Your task to perform on an android device: Open the calendar app, open the side menu, and click the "Day" option Image 0: 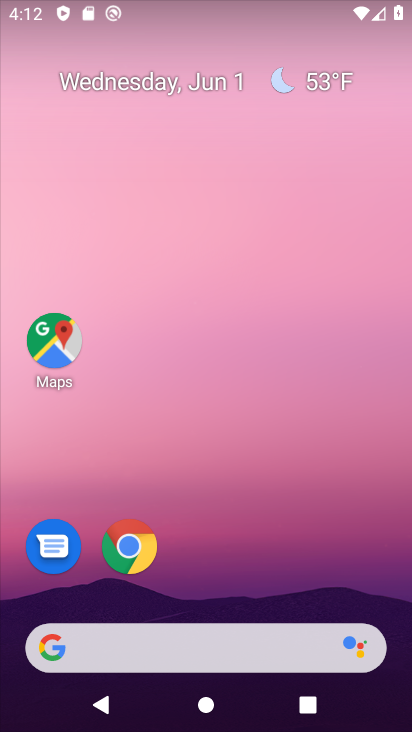
Step 0: drag from (221, 495) to (206, 193)
Your task to perform on an android device: Open the calendar app, open the side menu, and click the "Day" option Image 1: 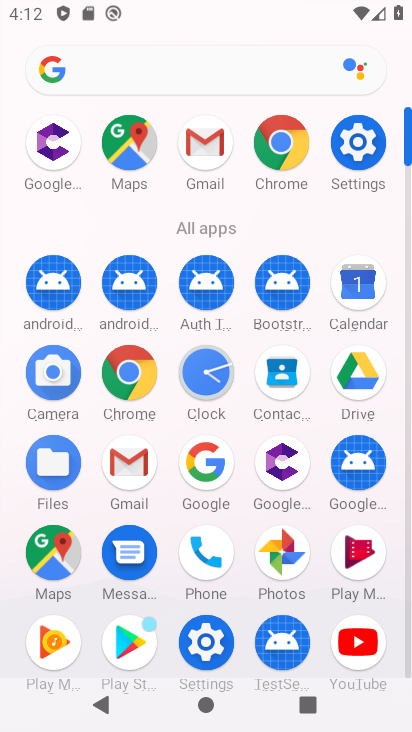
Step 1: click (351, 277)
Your task to perform on an android device: Open the calendar app, open the side menu, and click the "Day" option Image 2: 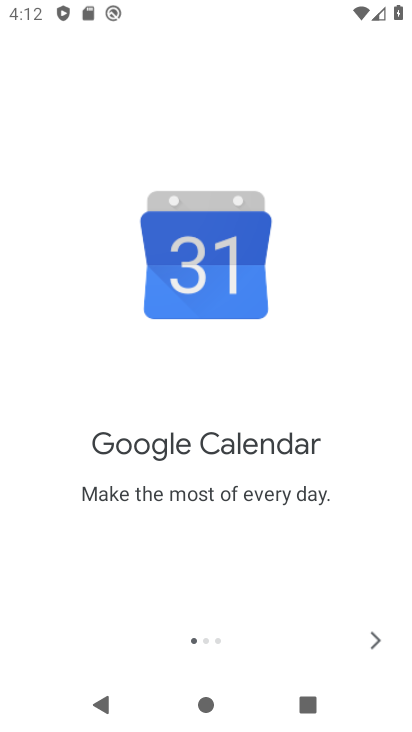
Step 2: click (368, 640)
Your task to perform on an android device: Open the calendar app, open the side menu, and click the "Day" option Image 3: 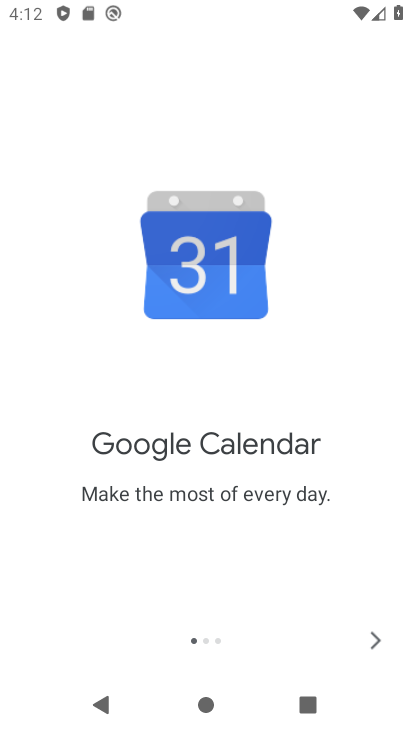
Step 3: click (368, 640)
Your task to perform on an android device: Open the calendar app, open the side menu, and click the "Day" option Image 4: 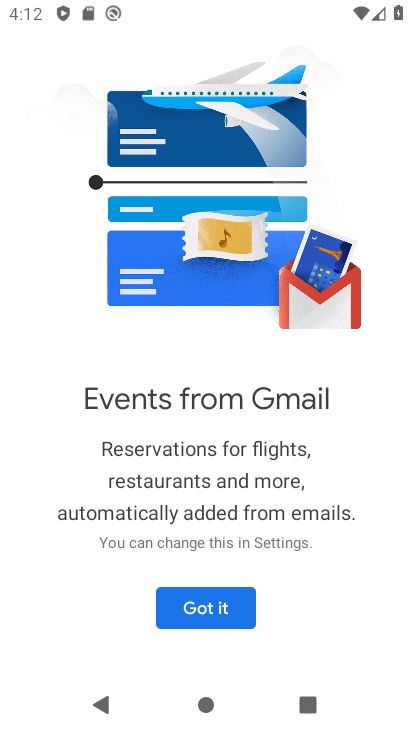
Step 4: click (211, 607)
Your task to perform on an android device: Open the calendar app, open the side menu, and click the "Day" option Image 5: 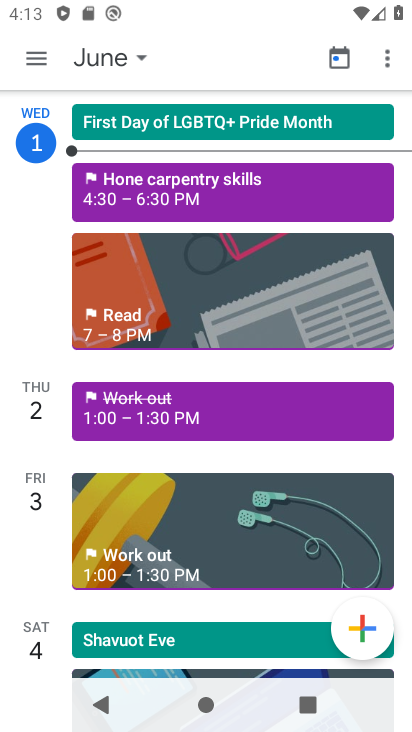
Step 5: click (33, 50)
Your task to perform on an android device: Open the calendar app, open the side menu, and click the "Day" option Image 6: 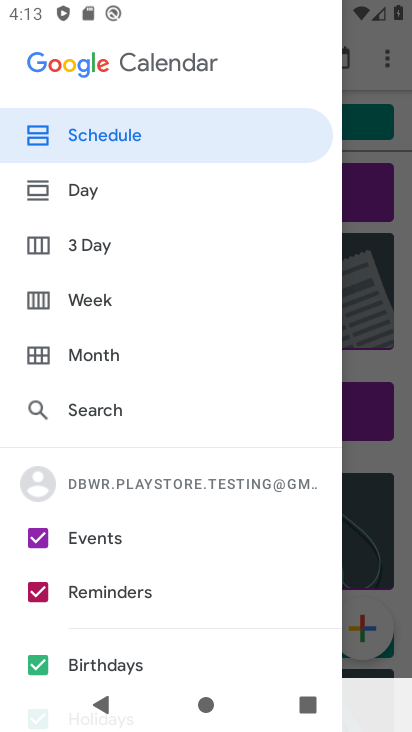
Step 6: click (80, 194)
Your task to perform on an android device: Open the calendar app, open the side menu, and click the "Day" option Image 7: 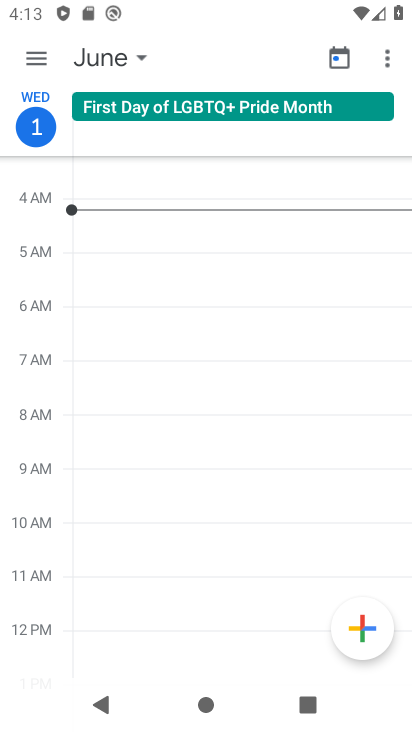
Step 7: task complete